Your task to perform on an android device: find snoozed emails in the gmail app Image 0: 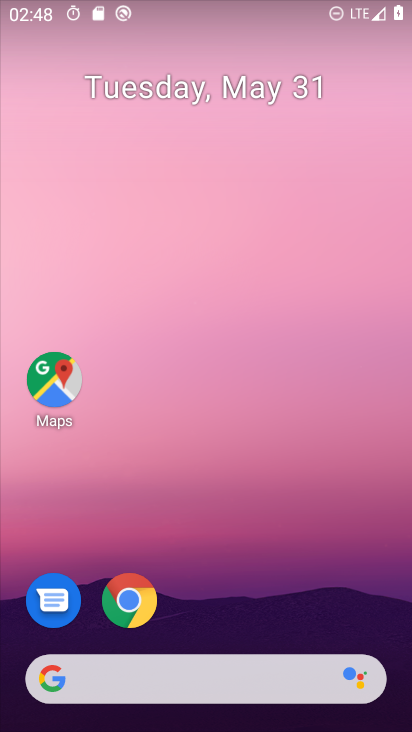
Step 0: drag from (206, 715) to (233, 68)
Your task to perform on an android device: find snoozed emails in the gmail app Image 1: 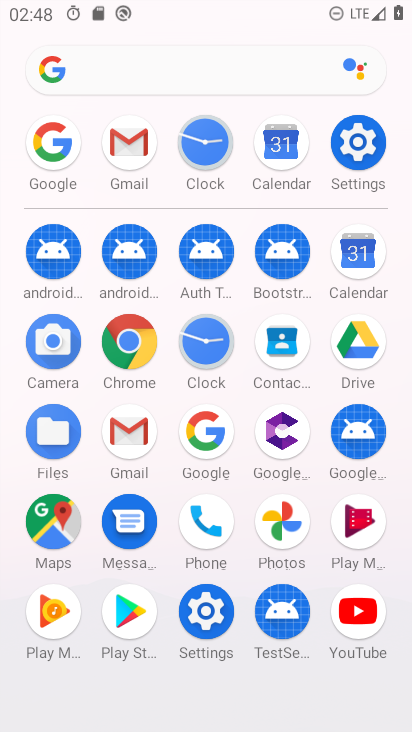
Step 1: click (124, 439)
Your task to perform on an android device: find snoozed emails in the gmail app Image 2: 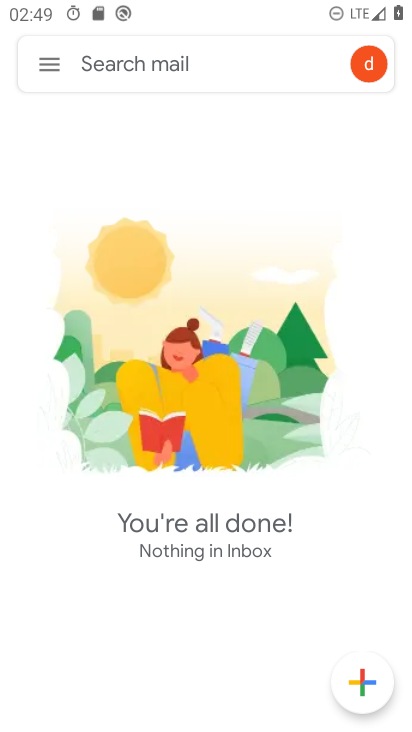
Step 2: click (50, 57)
Your task to perform on an android device: find snoozed emails in the gmail app Image 3: 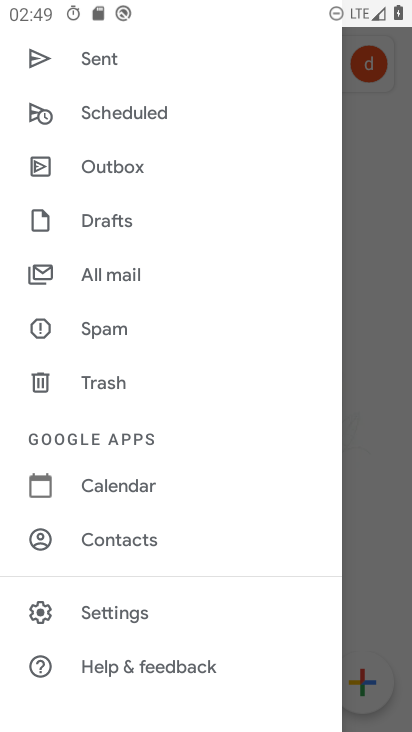
Step 3: drag from (157, 131) to (146, 413)
Your task to perform on an android device: find snoozed emails in the gmail app Image 4: 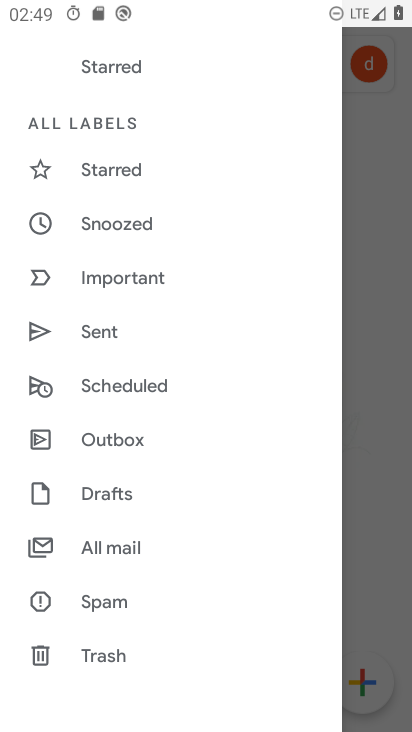
Step 4: click (131, 225)
Your task to perform on an android device: find snoozed emails in the gmail app Image 5: 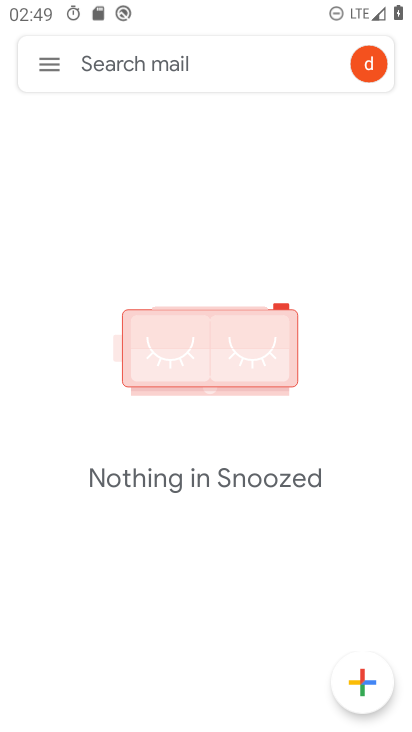
Step 5: task complete